Your task to perform on an android device: manage bookmarks in the chrome app Image 0: 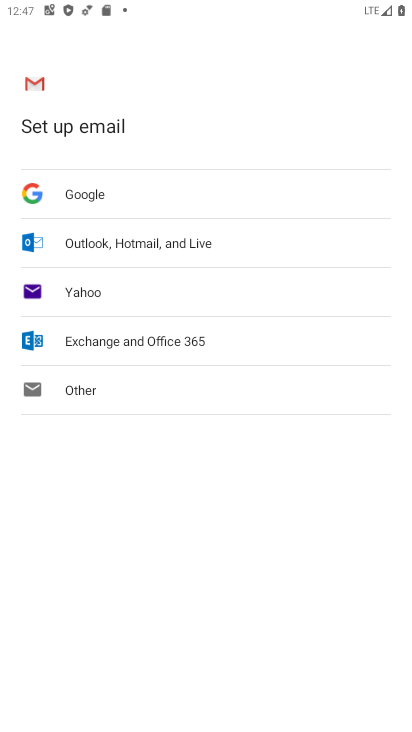
Step 0: press home button
Your task to perform on an android device: manage bookmarks in the chrome app Image 1: 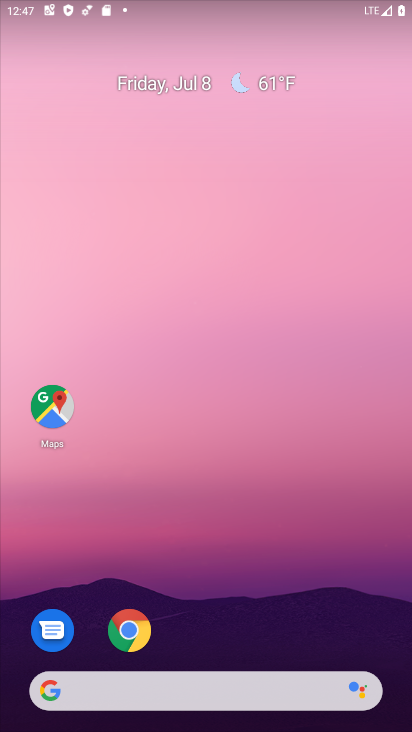
Step 1: drag from (384, 650) to (116, 14)
Your task to perform on an android device: manage bookmarks in the chrome app Image 2: 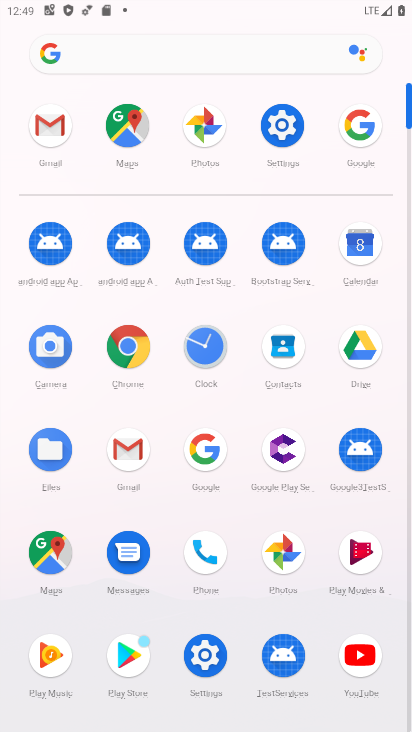
Step 2: click (124, 352)
Your task to perform on an android device: manage bookmarks in the chrome app Image 3: 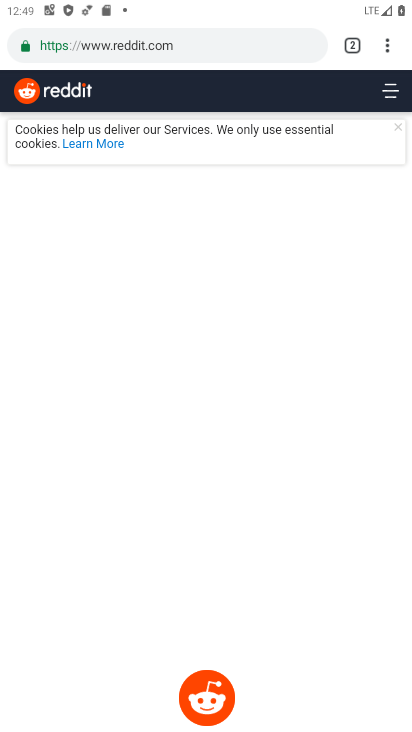
Step 3: press back button
Your task to perform on an android device: manage bookmarks in the chrome app Image 4: 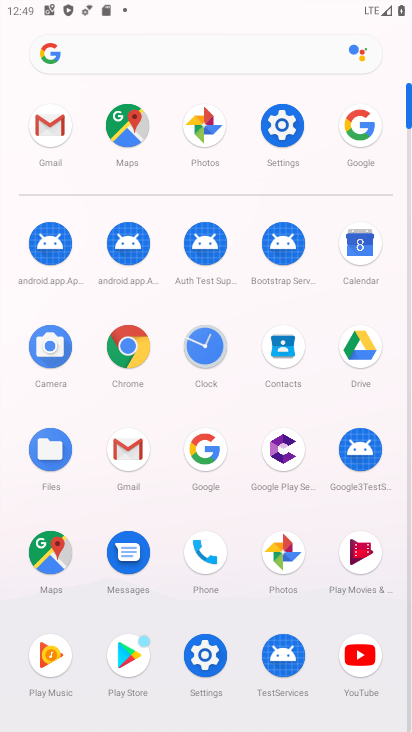
Step 4: click (120, 355)
Your task to perform on an android device: manage bookmarks in the chrome app Image 5: 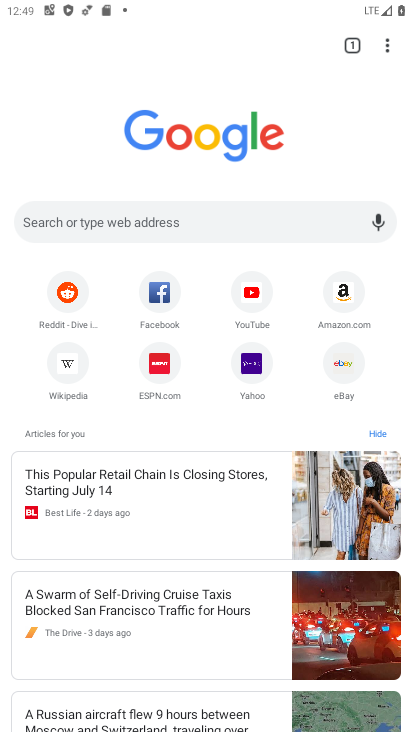
Step 5: task complete